Your task to perform on an android device: turn on wifi Image 0: 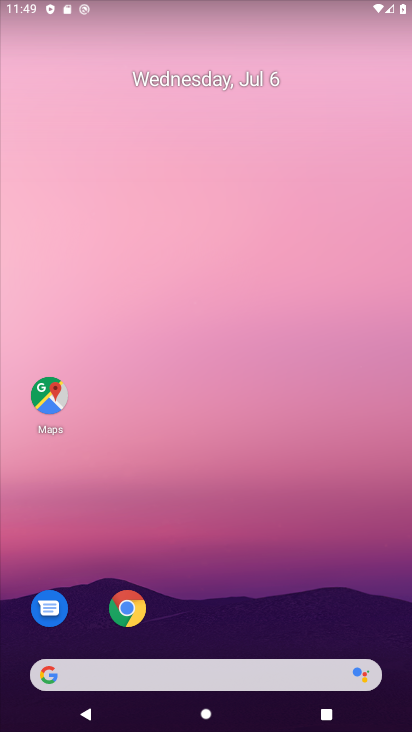
Step 0: drag from (271, 663) to (297, 277)
Your task to perform on an android device: turn on wifi Image 1: 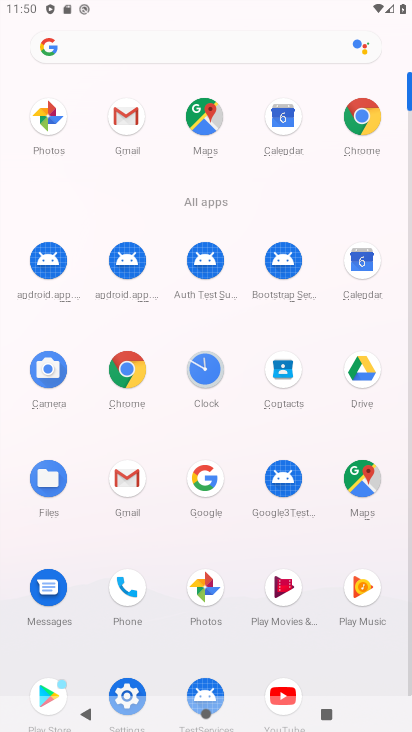
Step 1: drag from (291, 0) to (107, 711)
Your task to perform on an android device: turn on wifi Image 2: 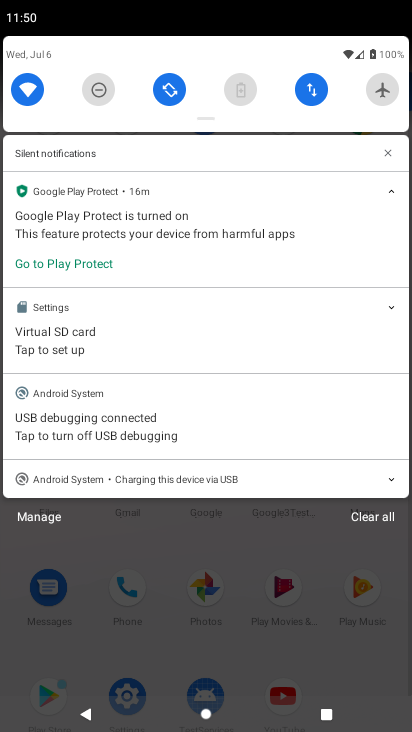
Step 2: click (24, 92)
Your task to perform on an android device: turn on wifi Image 3: 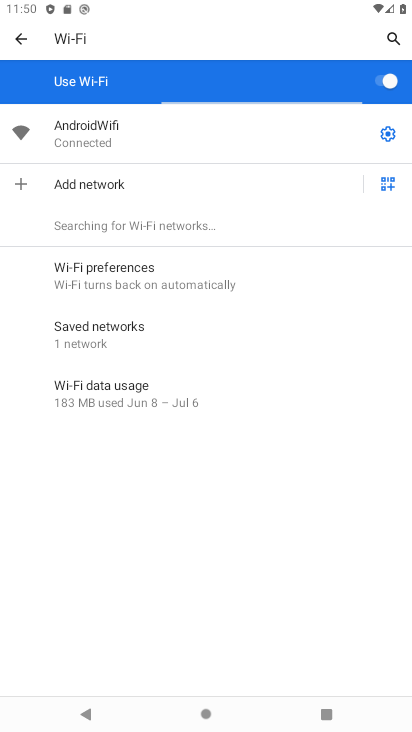
Step 3: task complete